Your task to perform on an android device: Toggle the flashlight Image 0: 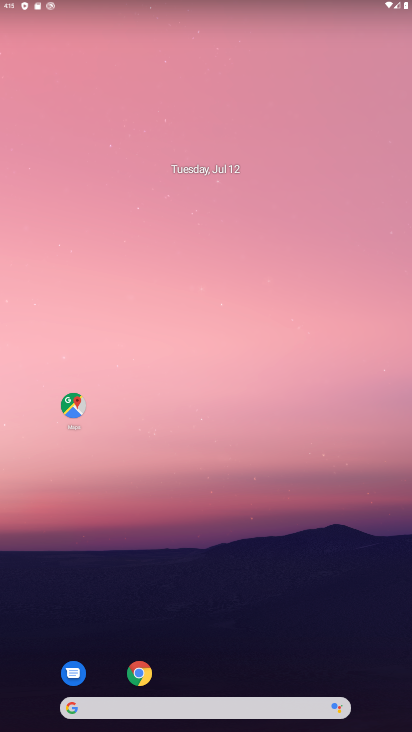
Step 0: drag from (147, 624) to (232, 79)
Your task to perform on an android device: Toggle the flashlight Image 1: 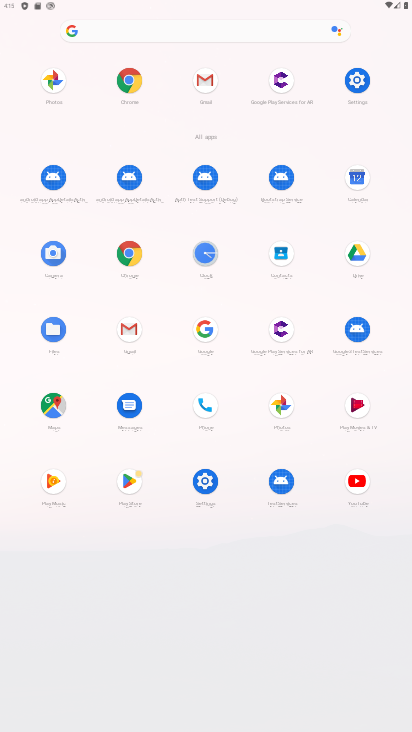
Step 1: click (212, 489)
Your task to perform on an android device: Toggle the flashlight Image 2: 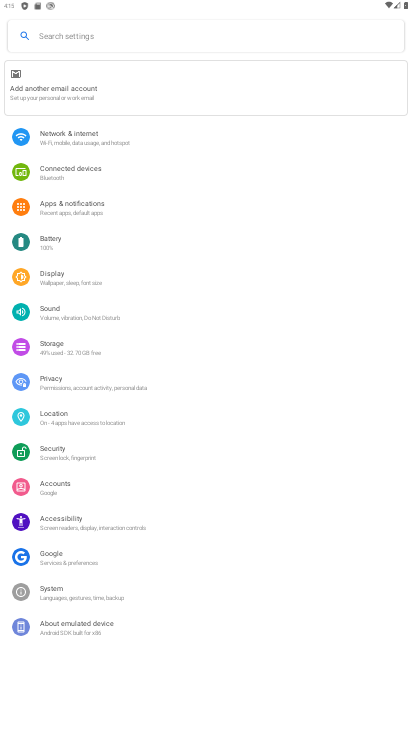
Step 2: task complete